Your task to perform on an android device: Open calendar and show me the second week of next month Image 0: 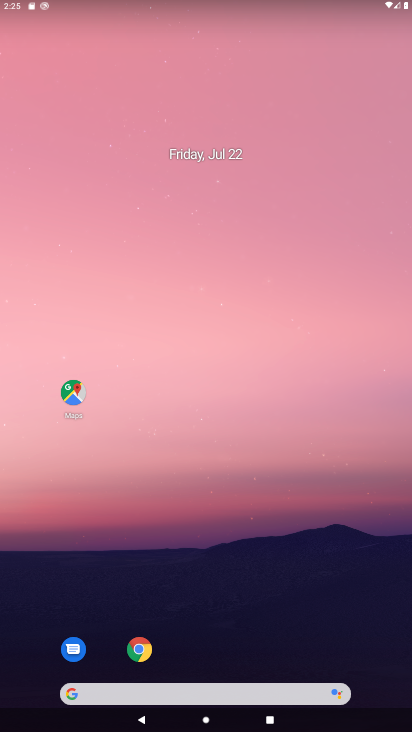
Step 0: drag from (225, 716) to (225, 446)
Your task to perform on an android device: Open calendar and show me the second week of next month Image 1: 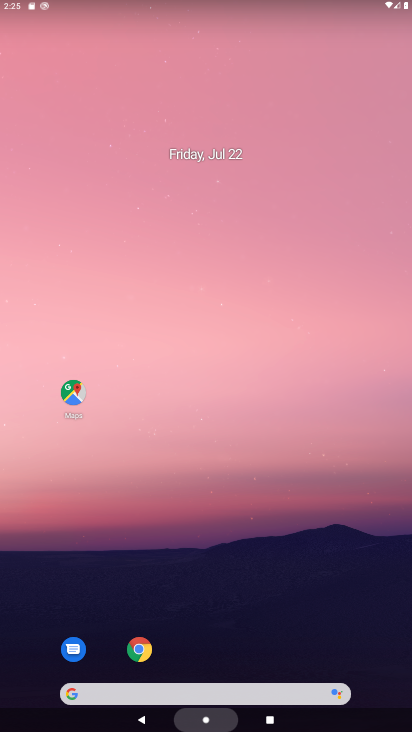
Step 1: click (202, 159)
Your task to perform on an android device: Open calendar and show me the second week of next month Image 2: 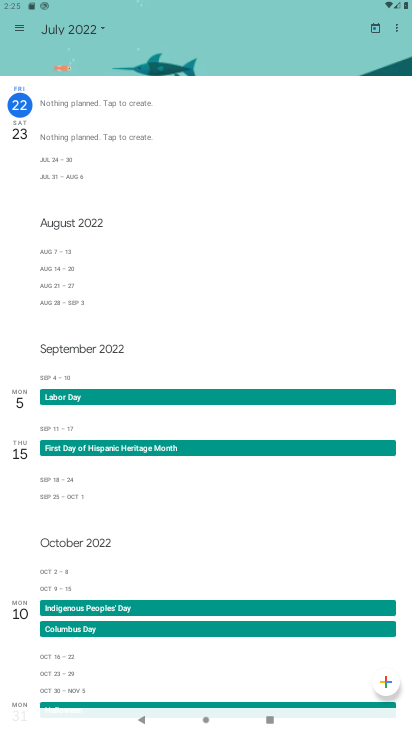
Step 2: press home button
Your task to perform on an android device: Open calendar and show me the second week of next month Image 3: 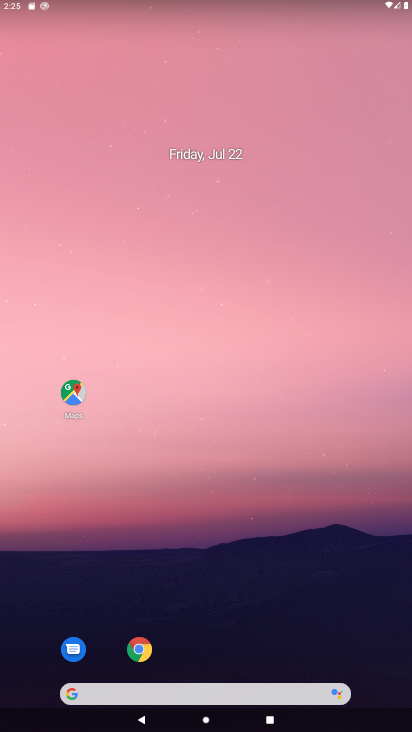
Step 3: drag from (200, 579) to (197, 226)
Your task to perform on an android device: Open calendar and show me the second week of next month Image 4: 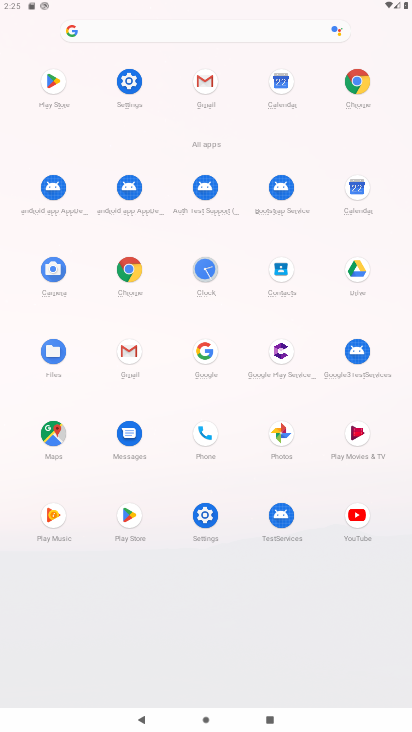
Step 4: click (358, 186)
Your task to perform on an android device: Open calendar and show me the second week of next month Image 5: 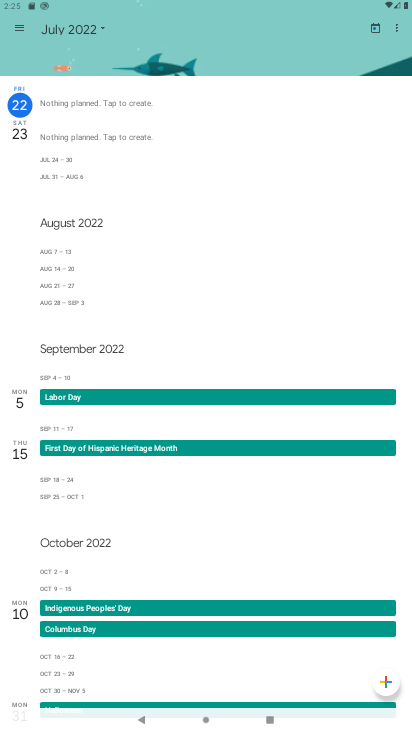
Step 5: click (101, 31)
Your task to perform on an android device: Open calendar and show me the second week of next month Image 6: 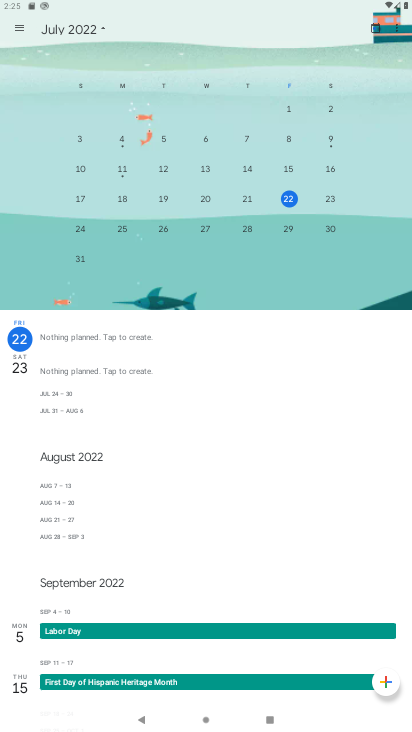
Step 6: drag from (305, 220) to (31, 220)
Your task to perform on an android device: Open calendar and show me the second week of next month Image 7: 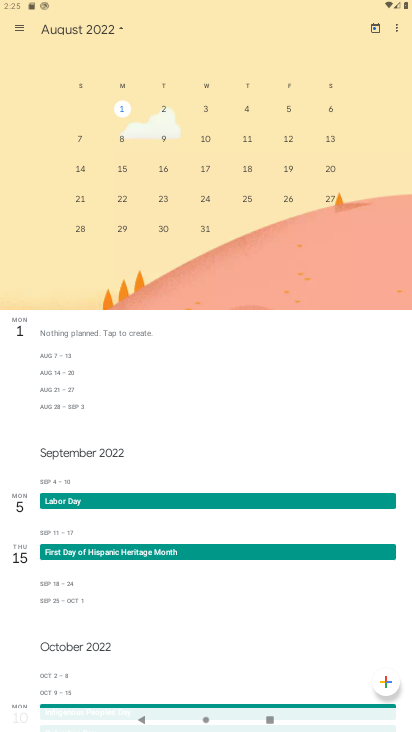
Step 7: click (122, 138)
Your task to perform on an android device: Open calendar and show me the second week of next month Image 8: 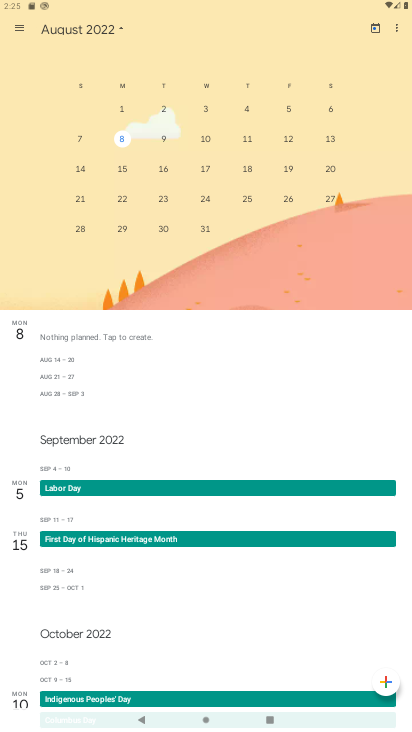
Step 8: click (21, 32)
Your task to perform on an android device: Open calendar and show me the second week of next month Image 9: 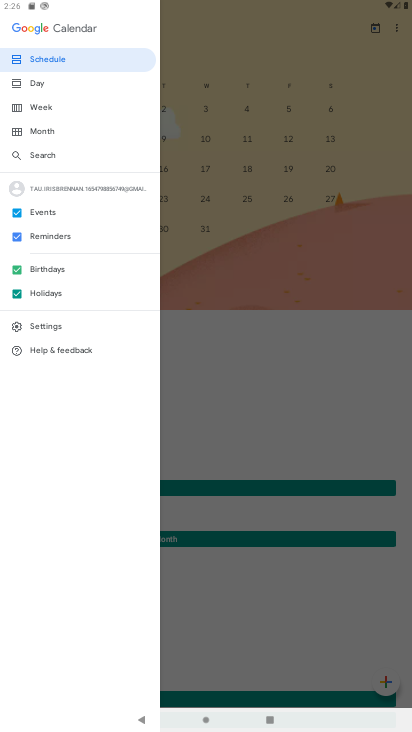
Step 9: click (42, 106)
Your task to perform on an android device: Open calendar and show me the second week of next month Image 10: 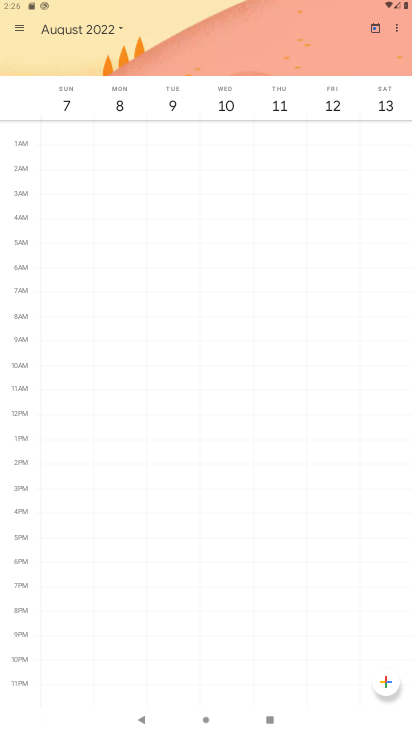
Step 10: task complete